Your task to perform on an android device: turn off data saver in the chrome app Image 0: 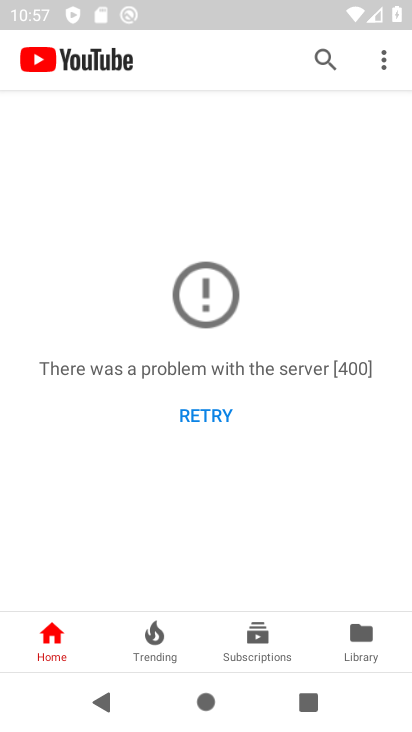
Step 0: press home button
Your task to perform on an android device: turn off data saver in the chrome app Image 1: 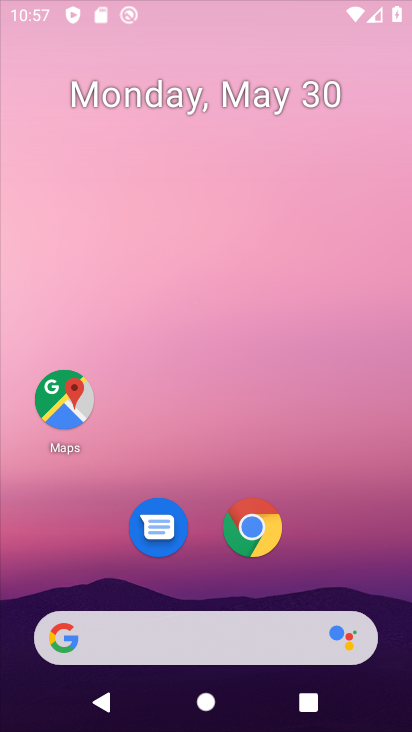
Step 1: drag from (363, 546) to (357, 102)
Your task to perform on an android device: turn off data saver in the chrome app Image 2: 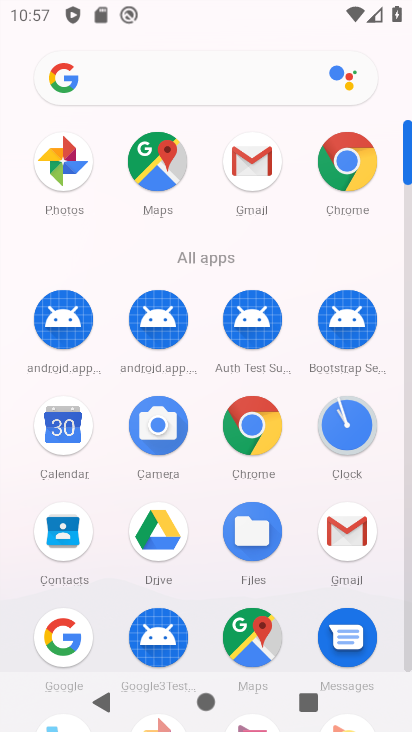
Step 2: click (280, 432)
Your task to perform on an android device: turn off data saver in the chrome app Image 3: 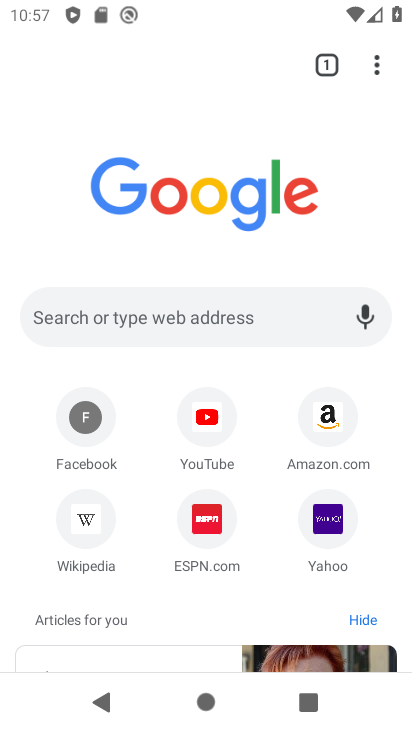
Step 3: drag from (374, 66) to (207, 539)
Your task to perform on an android device: turn off data saver in the chrome app Image 4: 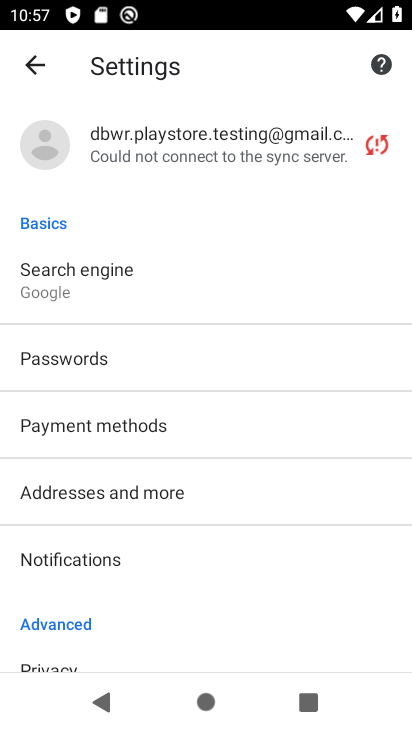
Step 4: drag from (220, 644) to (250, 314)
Your task to perform on an android device: turn off data saver in the chrome app Image 5: 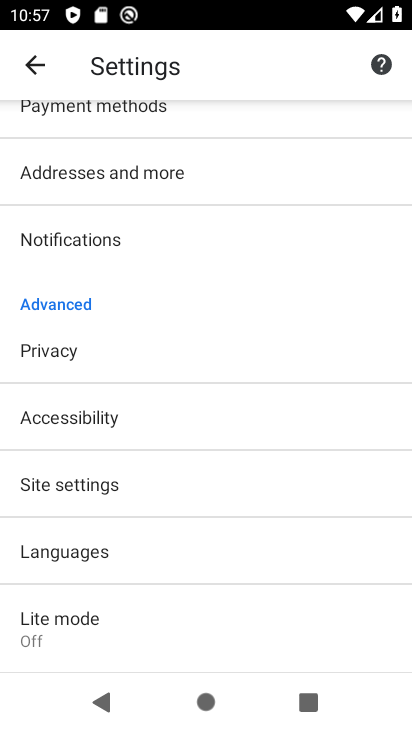
Step 5: click (98, 643)
Your task to perform on an android device: turn off data saver in the chrome app Image 6: 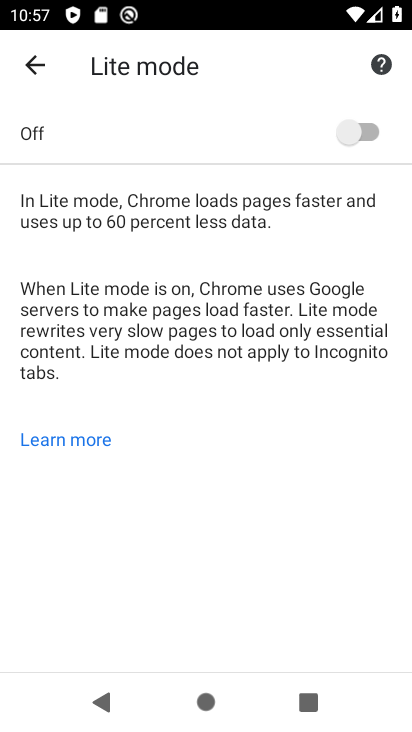
Step 6: task complete